Your task to perform on an android device: Do I have any events this weekend? Image 0: 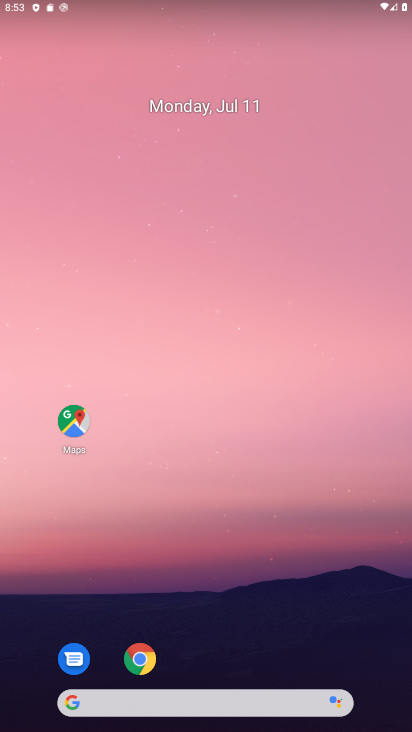
Step 0: drag from (195, 726) to (227, 170)
Your task to perform on an android device: Do I have any events this weekend? Image 1: 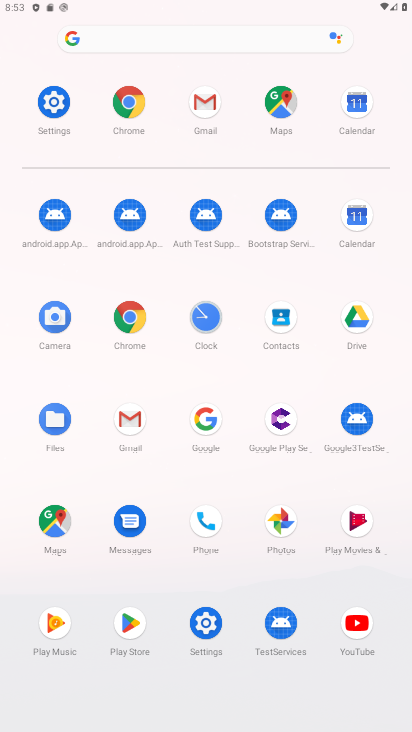
Step 1: click (363, 218)
Your task to perform on an android device: Do I have any events this weekend? Image 2: 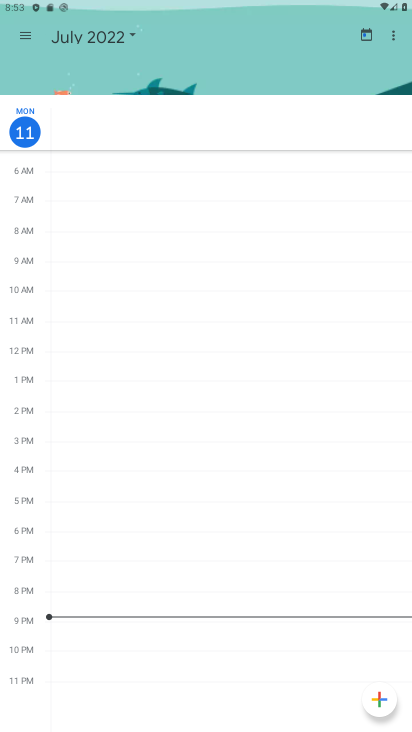
Step 2: click (17, 35)
Your task to perform on an android device: Do I have any events this weekend? Image 3: 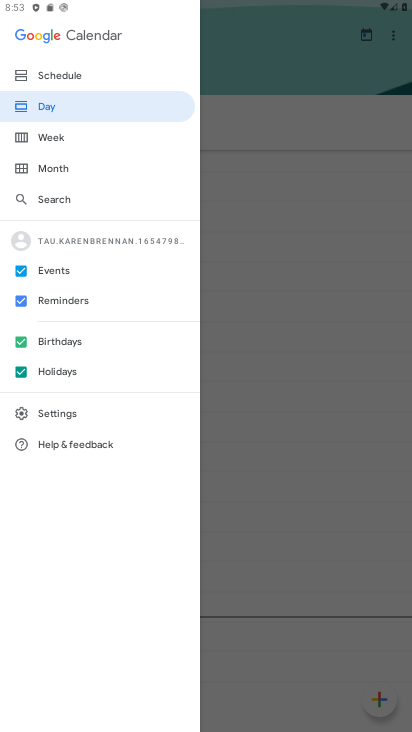
Step 3: click (23, 369)
Your task to perform on an android device: Do I have any events this weekend? Image 4: 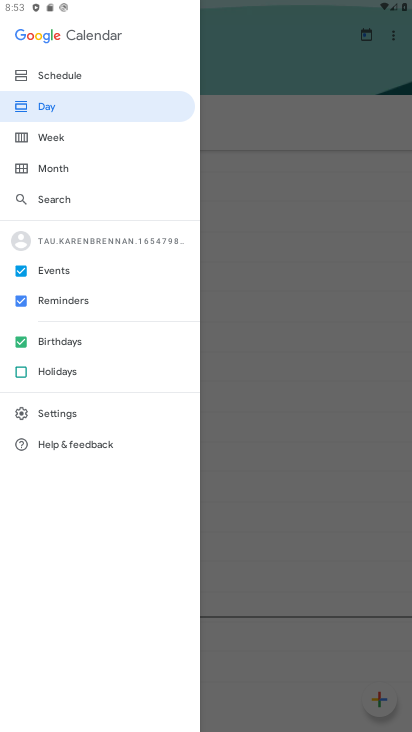
Step 4: click (25, 340)
Your task to perform on an android device: Do I have any events this weekend? Image 5: 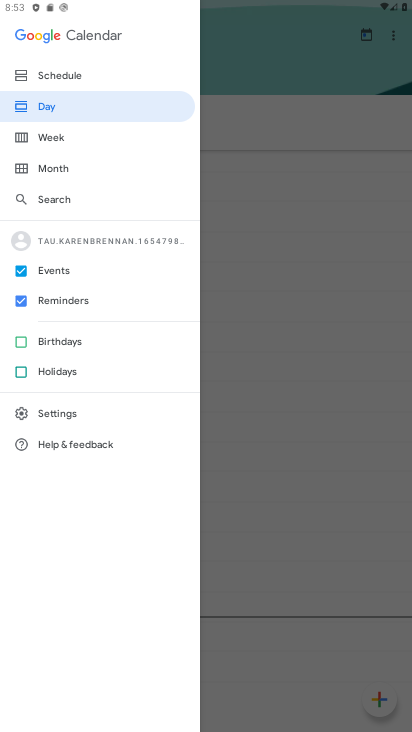
Step 5: click (23, 295)
Your task to perform on an android device: Do I have any events this weekend? Image 6: 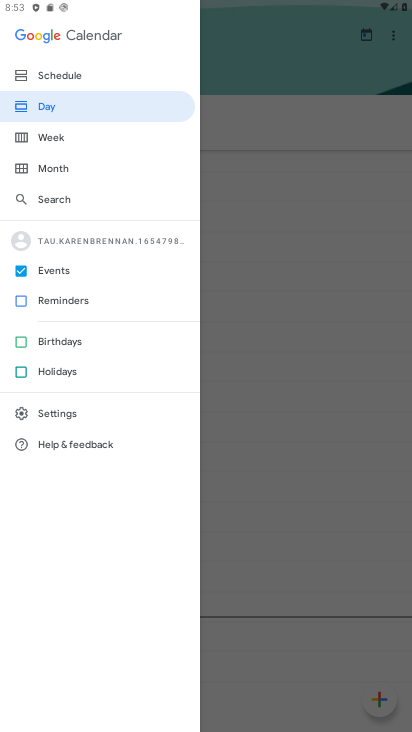
Step 6: click (60, 139)
Your task to perform on an android device: Do I have any events this weekend? Image 7: 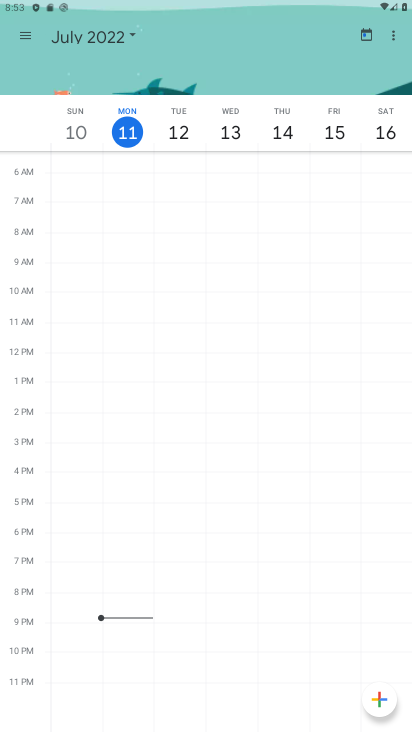
Step 7: click (384, 123)
Your task to perform on an android device: Do I have any events this weekend? Image 8: 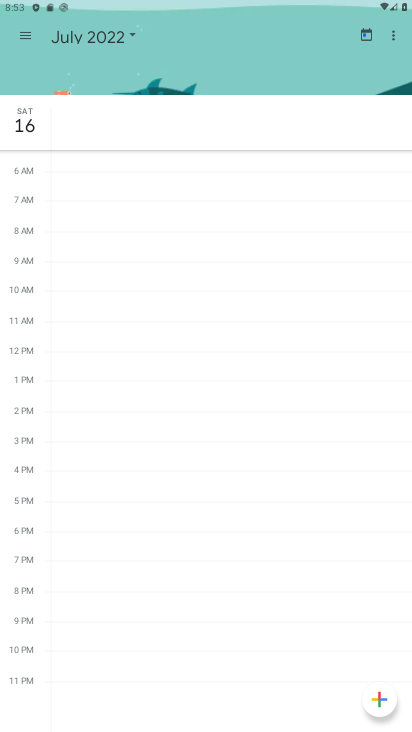
Step 8: task complete